Your task to perform on an android device: Open Google Chrome and open the bookmarks view Image 0: 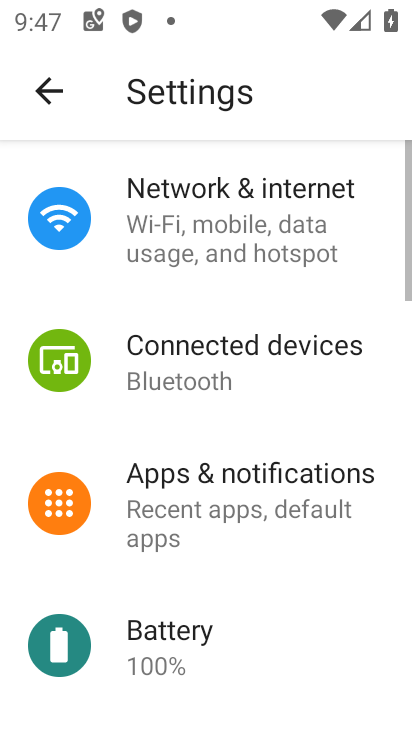
Step 0: press home button
Your task to perform on an android device: Open Google Chrome and open the bookmarks view Image 1: 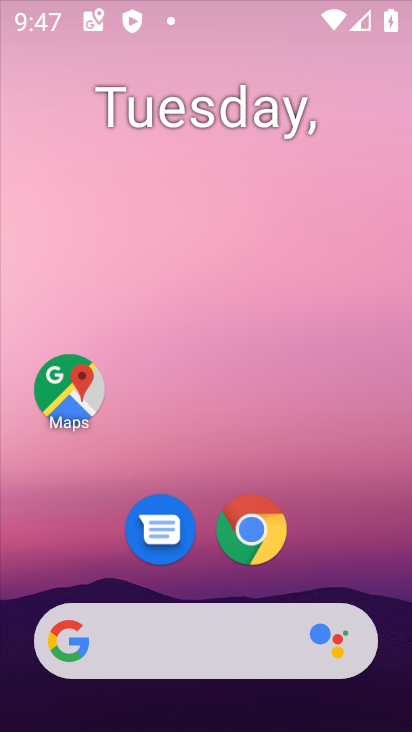
Step 1: drag from (217, 656) to (292, 196)
Your task to perform on an android device: Open Google Chrome and open the bookmarks view Image 2: 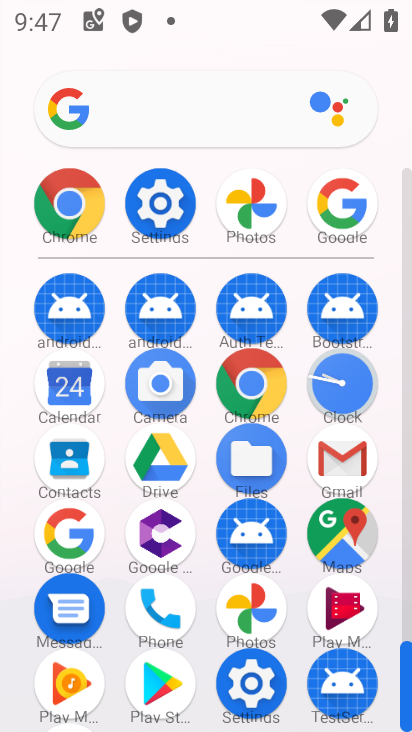
Step 2: click (269, 509)
Your task to perform on an android device: Open Google Chrome and open the bookmarks view Image 3: 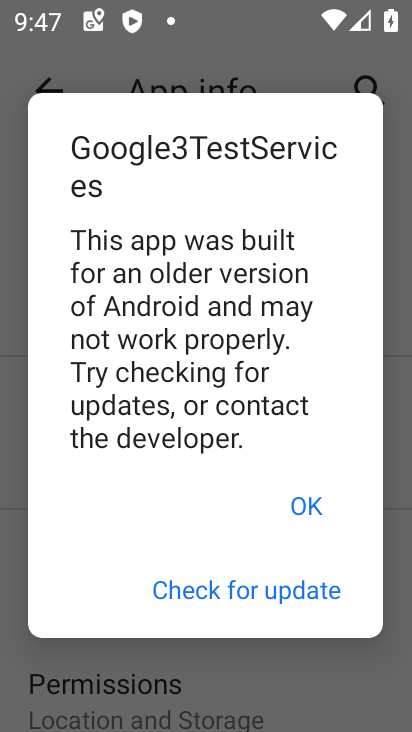
Step 3: press back button
Your task to perform on an android device: Open Google Chrome and open the bookmarks view Image 4: 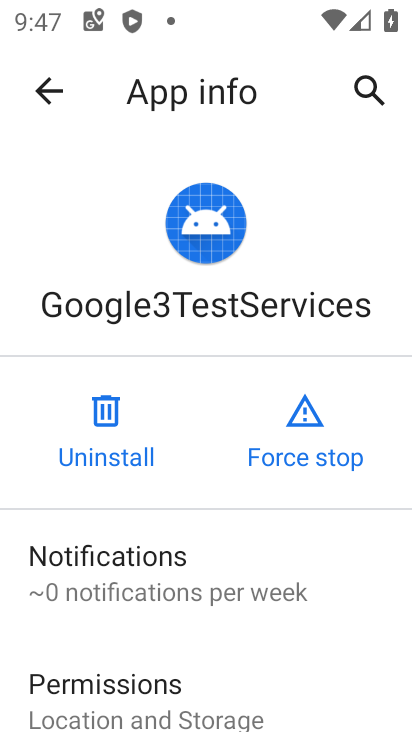
Step 4: press back button
Your task to perform on an android device: Open Google Chrome and open the bookmarks view Image 5: 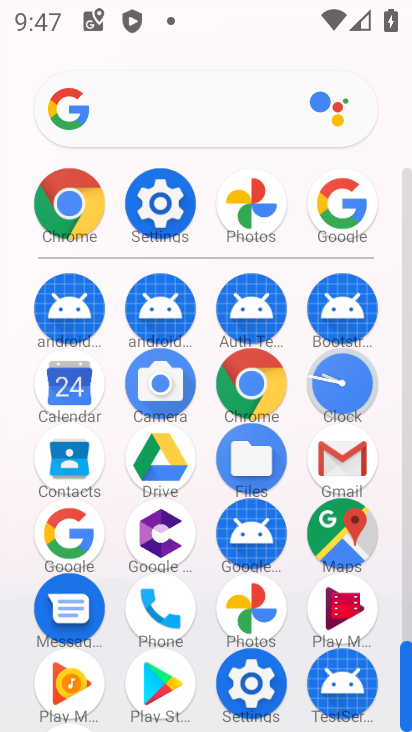
Step 5: click (84, 204)
Your task to perform on an android device: Open Google Chrome and open the bookmarks view Image 6: 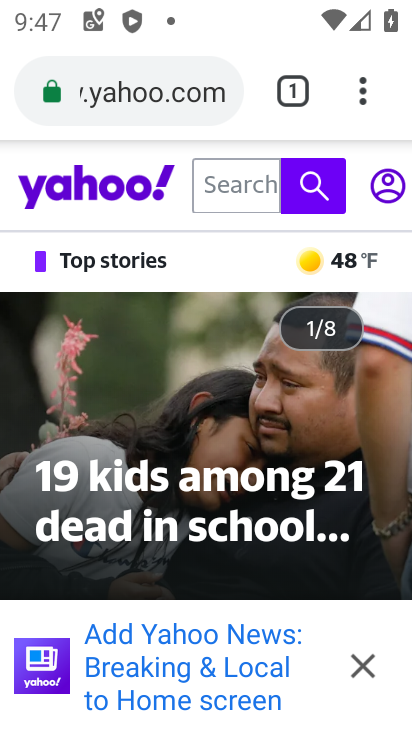
Step 6: click (375, 97)
Your task to perform on an android device: Open Google Chrome and open the bookmarks view Image 7: 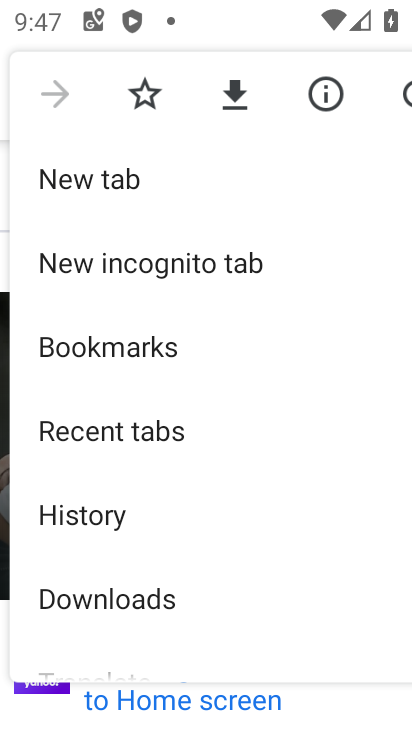
Step 7: drag from (218, 488) to (304, 200)
Your task to perform on an android device: Open Google Chrome and open the bookmarks view Image 8: 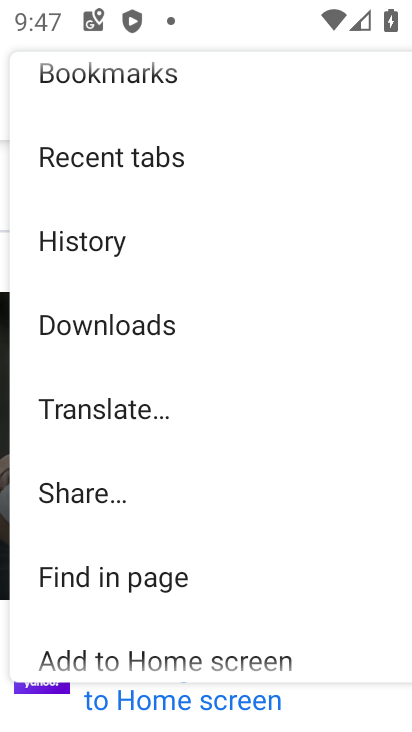
Step 8: click (188, 85)
Your task to perform on an android device: Open Google Chrome and open the bookmarks view Image 9: 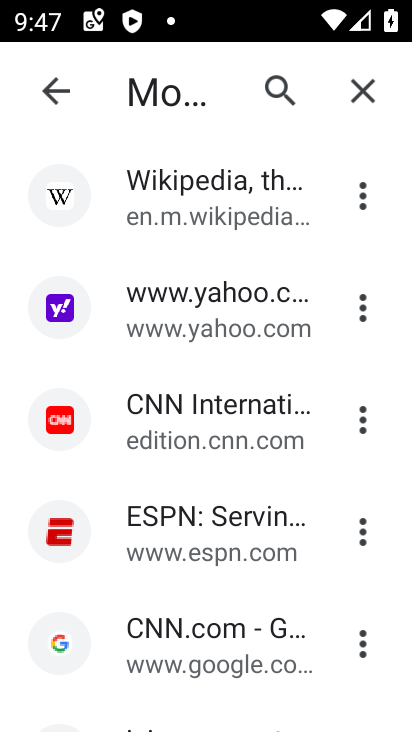
Step 9: task complete